Your task to perform on an android device: Open network settings Image 0: 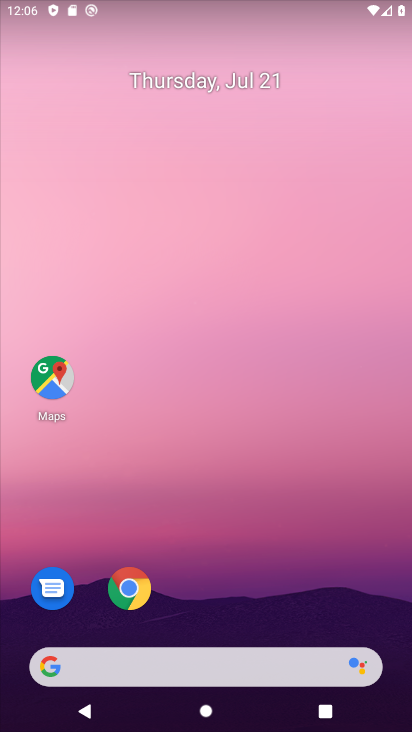
Step 0: drag from (242, 580) to (217, 316)
Your task to perform on an android device: Open network settings Image 1: 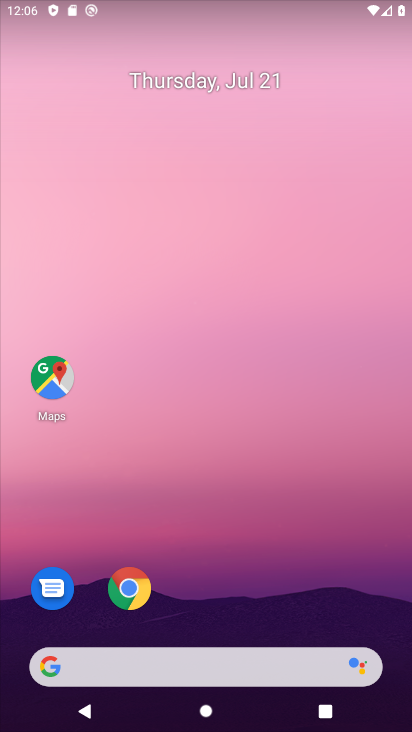
Step 1: drag from (204, 592) to (202, 242)
Your task to perform on an android device: Open network settings Image 2: 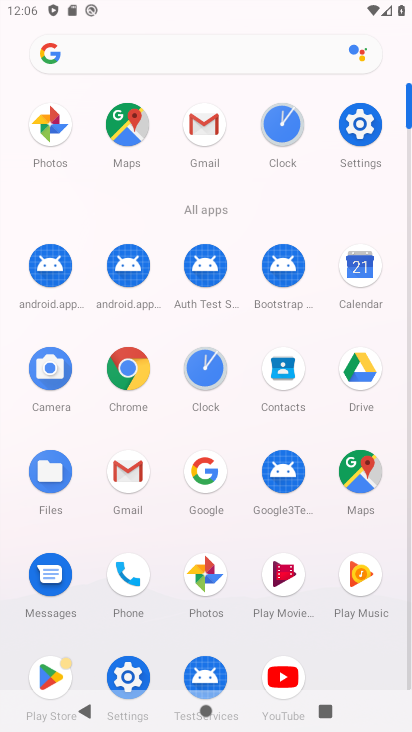
Step 2: click (124, 661)
Your task to perform on an android device: Open network settings Image 3: 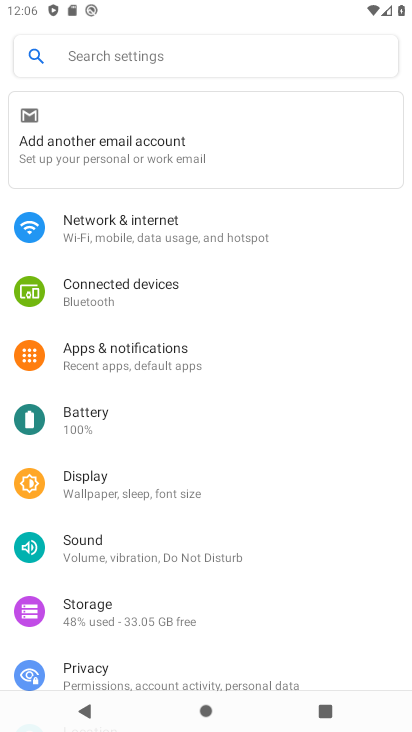
Step 3: click (144, 222)
Your task to perform on an android device: Open network settings Image 4: 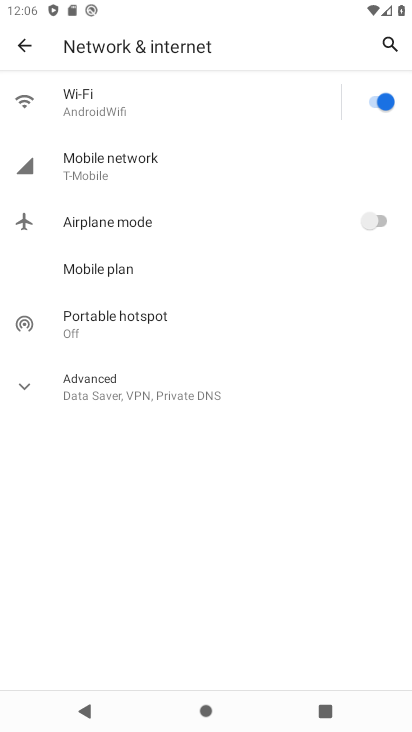
Step 4: task complete